Your task to perform on an android device: Search for seafood restaurants on Google Maps Image 0: 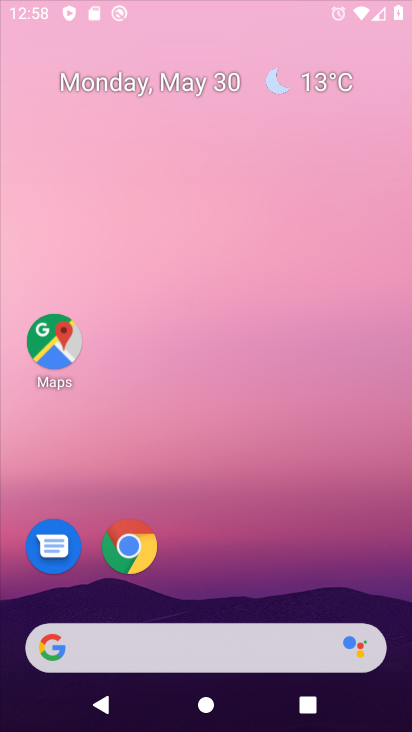
Step 0: press home button
Your task to perform on an android device: Search for seafood restaurants on Google Maps Image 1: 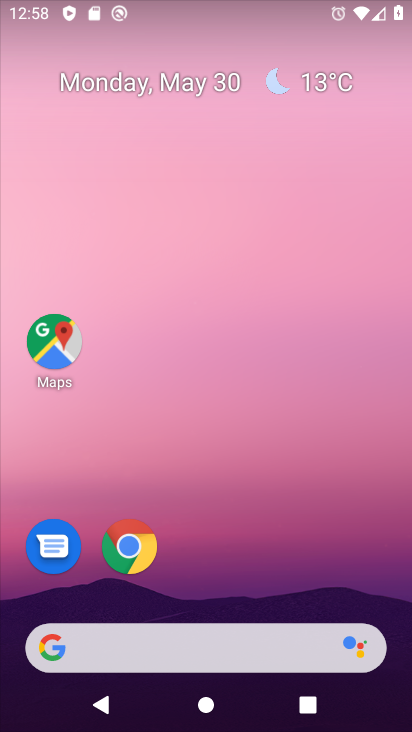
Step 1: click (63, 347)
Your task to perform on an android device: Search for seafood restaurants on Google Maps Image 2: 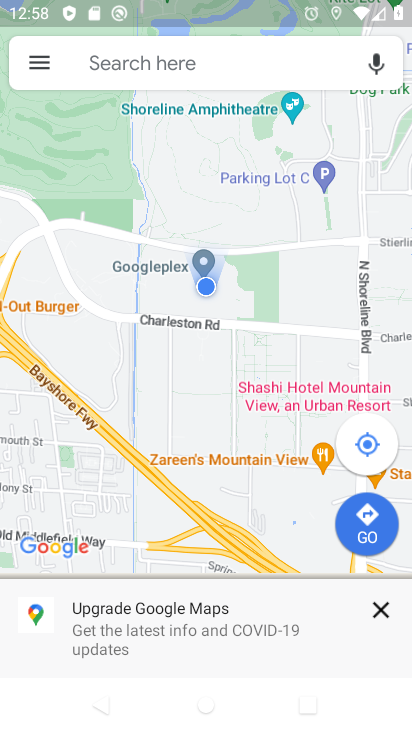
Step 2: click (177, 47)
Your task to perform on an android device: Search for seafood restaurants on Google Maps Image 3: 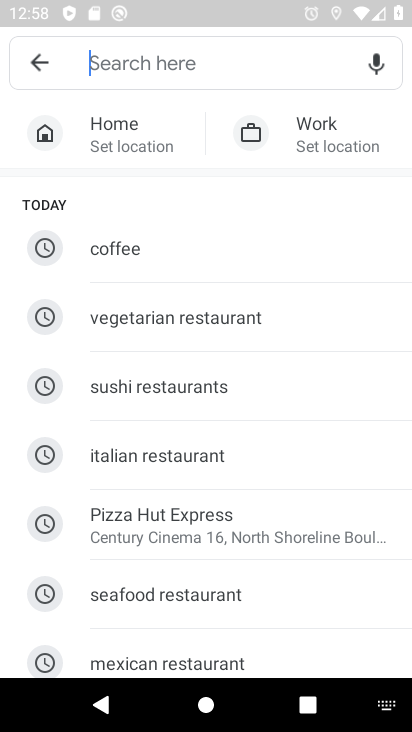
Step 3: click (211, 604)
Your task to perform on an android device: Search for seafood restaurants on Google Maps Image 4: 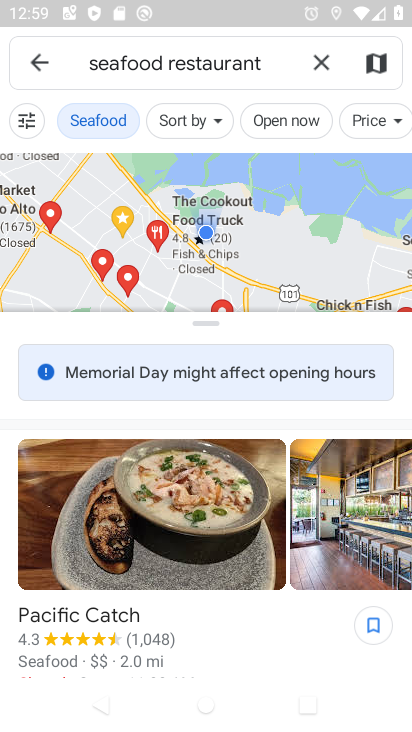
Step 4: task complete